Your task to perform on an android device: What time is it in Beijing? Image 0: 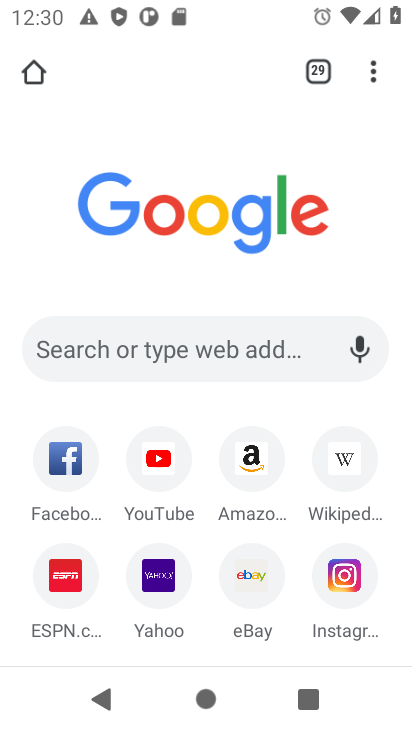
Step 0: press home button
Your task to perform on an android device: What time is it in Beijing? Image 1: 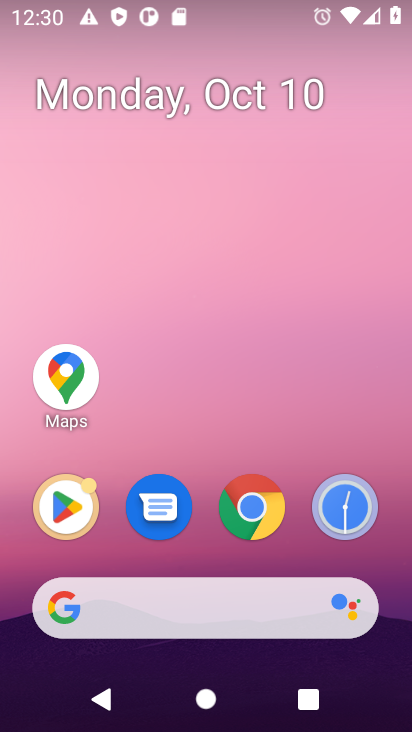
Step 1: click (249, 609)
Your task to perform on an android device: What time is it in Beijing? Image 2: 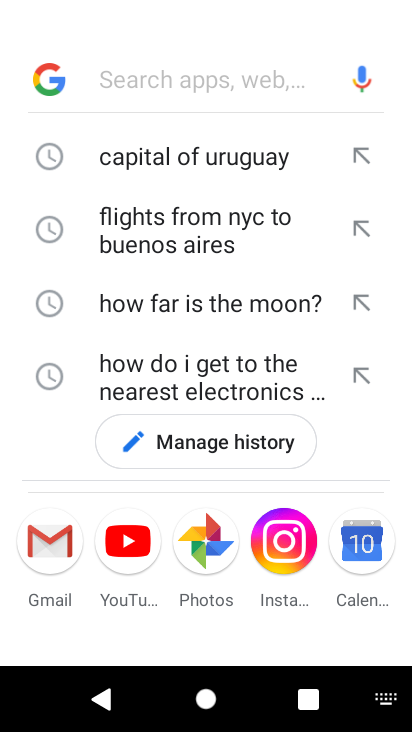
Step 2: type "What time is it in Beijing"
Your task to perform on an android device: What time is it in Beijing? Image 3: 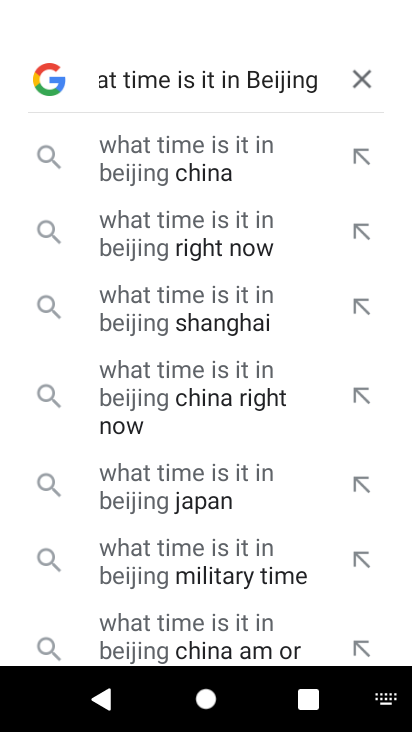
Step 3: press enter
Your task to perform on an android device: What time is it in Beijing? Image 4: 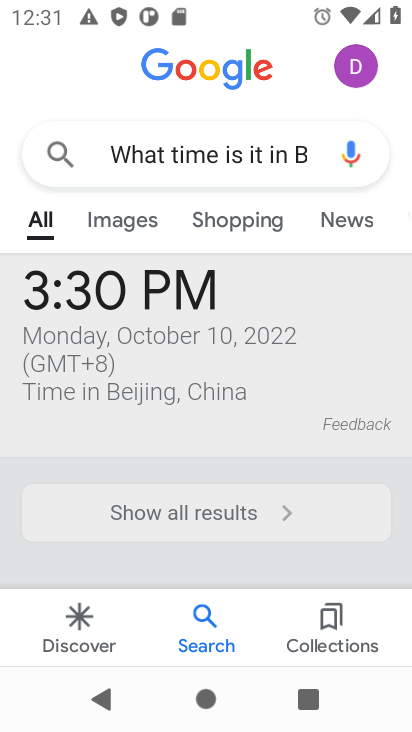
Step 4: task complete